Your task to perform on an android device: uninstall "Messenger Lite" Image 0: 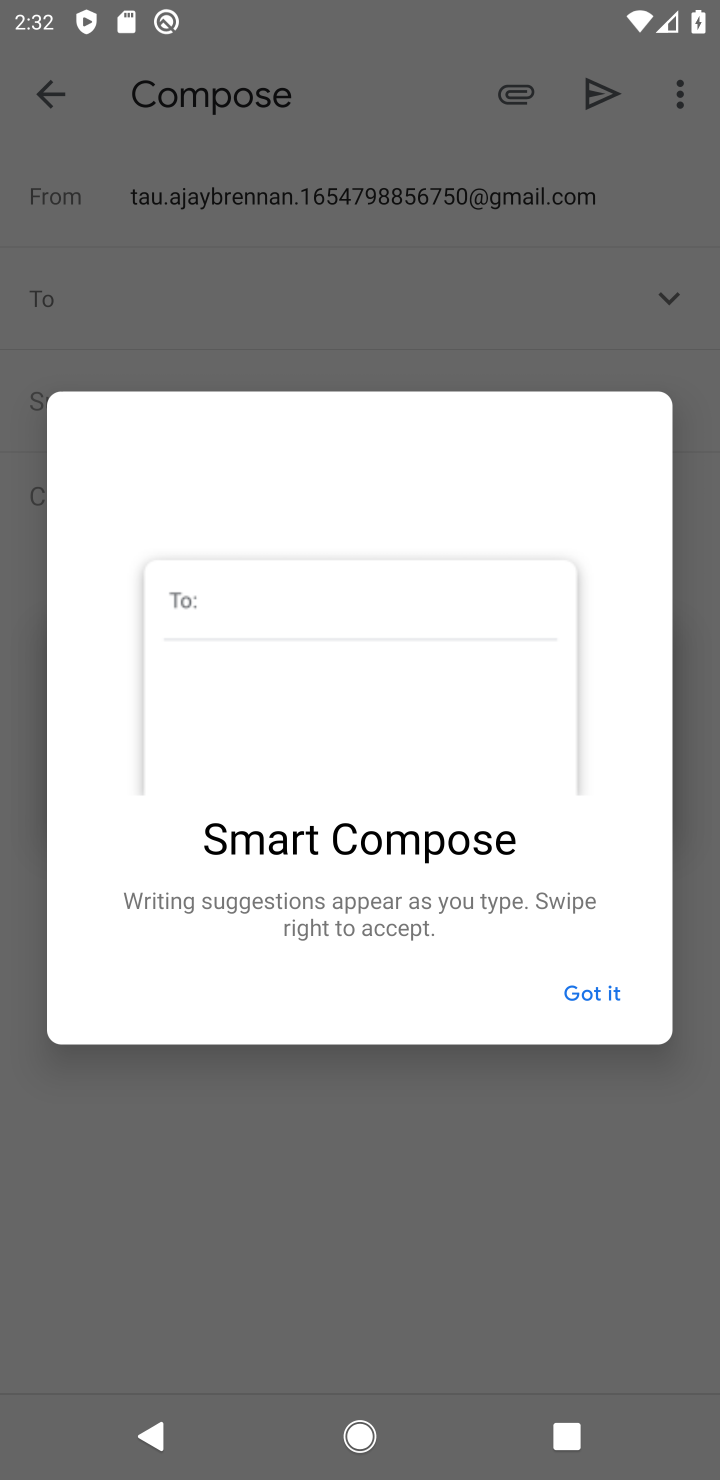
Step 0: press home button
Your task to perform on an android device: uninstall "Messenger Lite" Image 1: 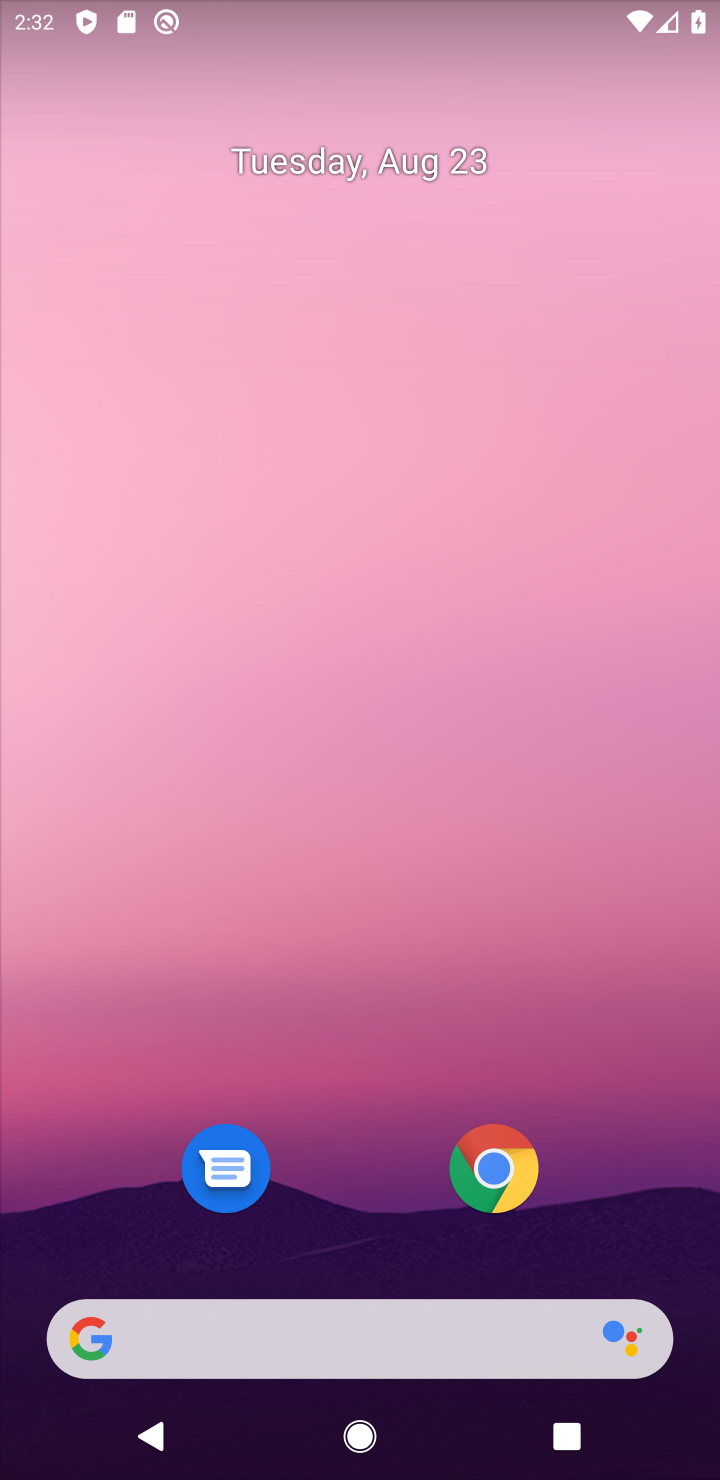
Step 1: drag from (455, 1298) to (480, 389)
Your task to perform on an android device: uninstall "Messenger Lite" Image 2: 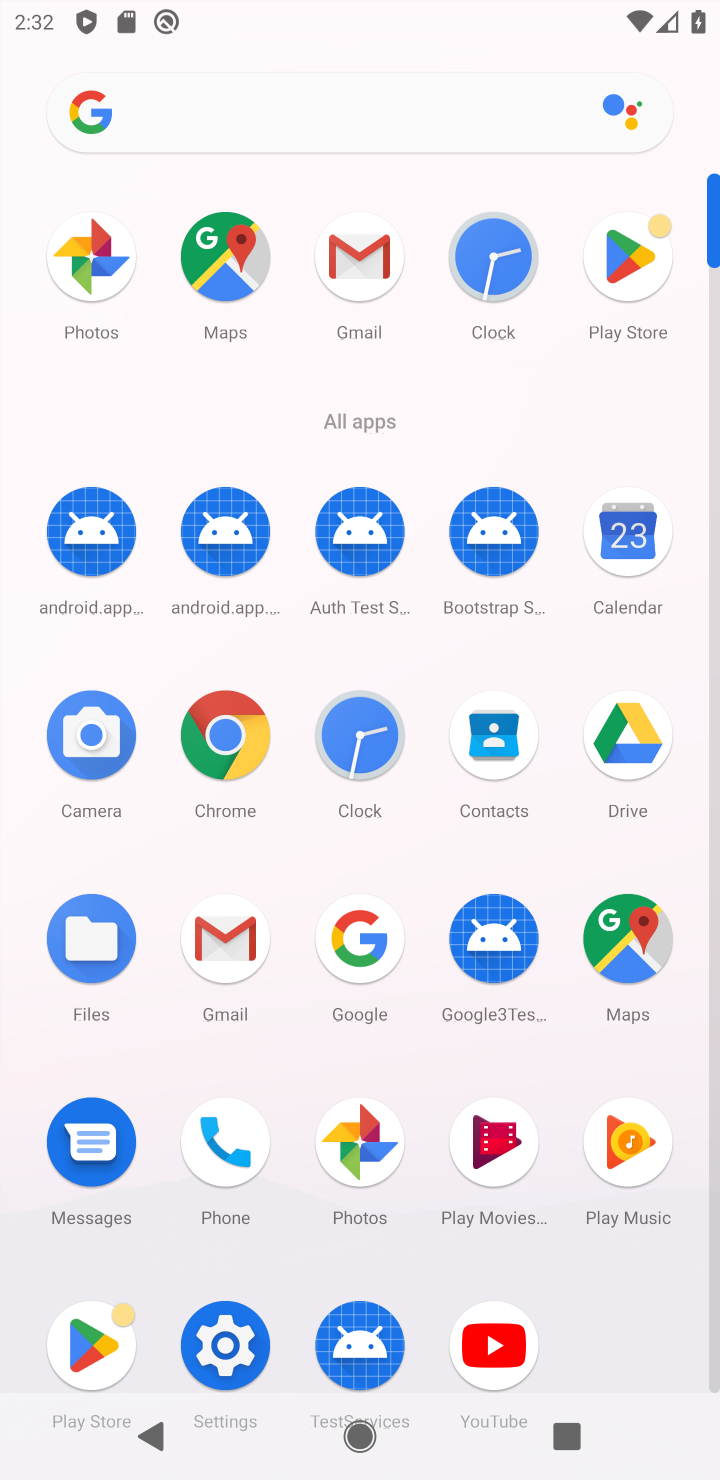
Step 2: click (621, 270)
Your task to perform on an android device: uninstall "Messenger Lite" Image 3: 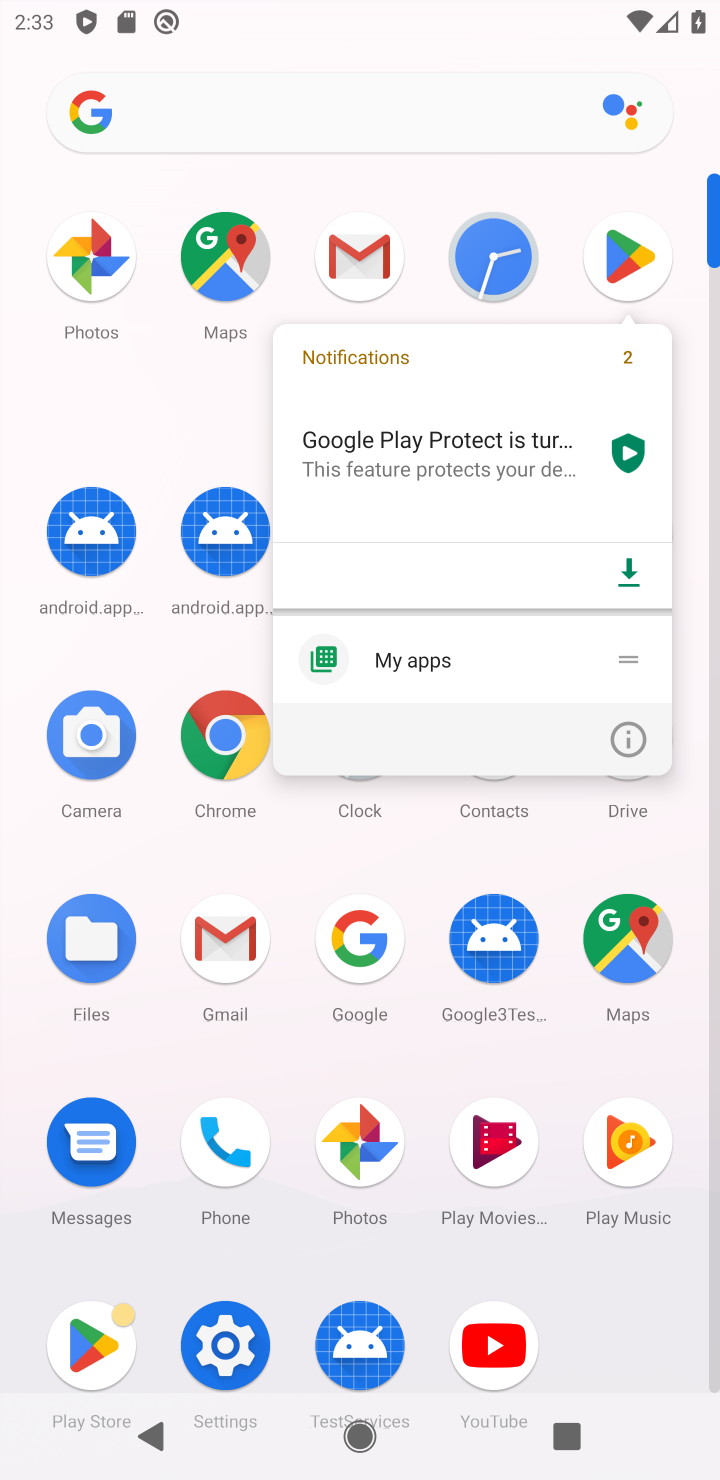
Step 3: click (608, 248)
Your task to perform on an android device: uninstall "Messenger Lite" Image 4: 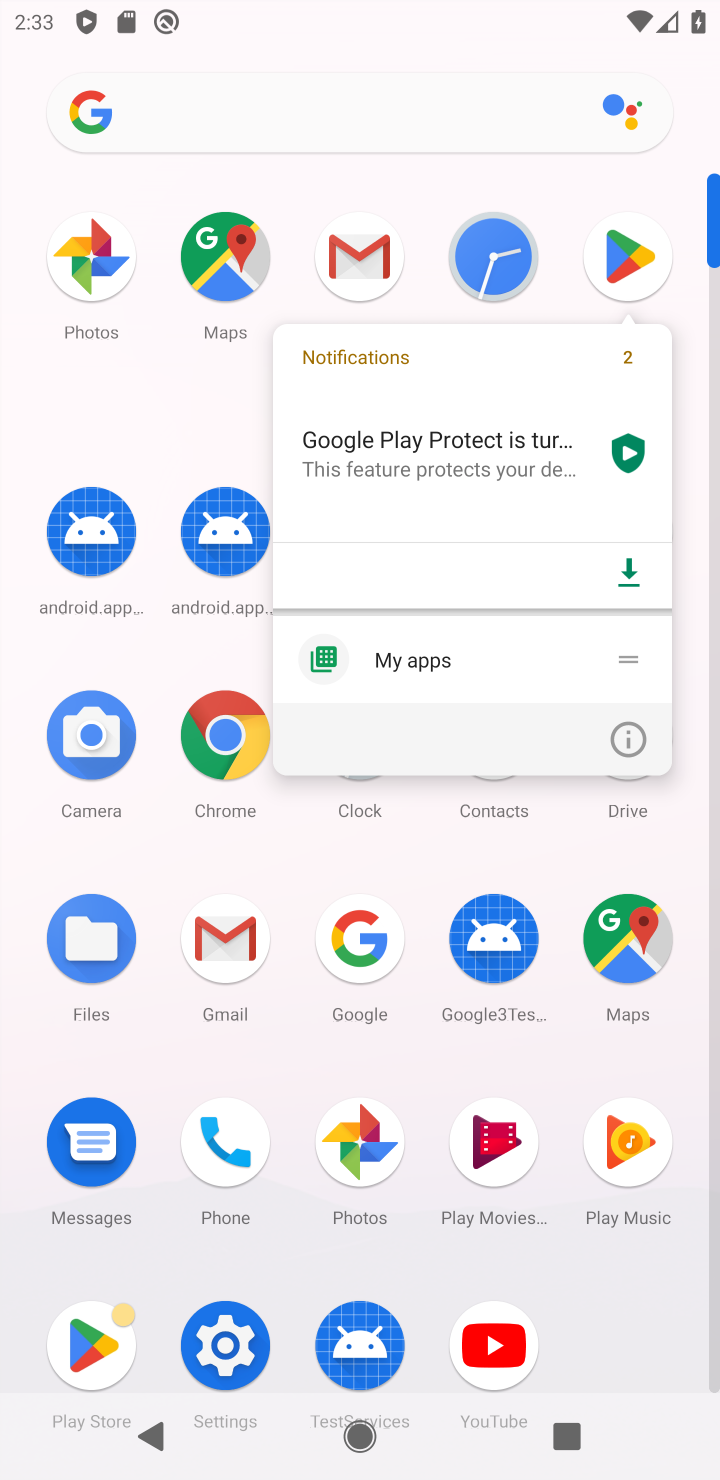
Step 4: click (618, 261)
Your task to perform on an android device: uninstall "Messenger Lite" Image 5: 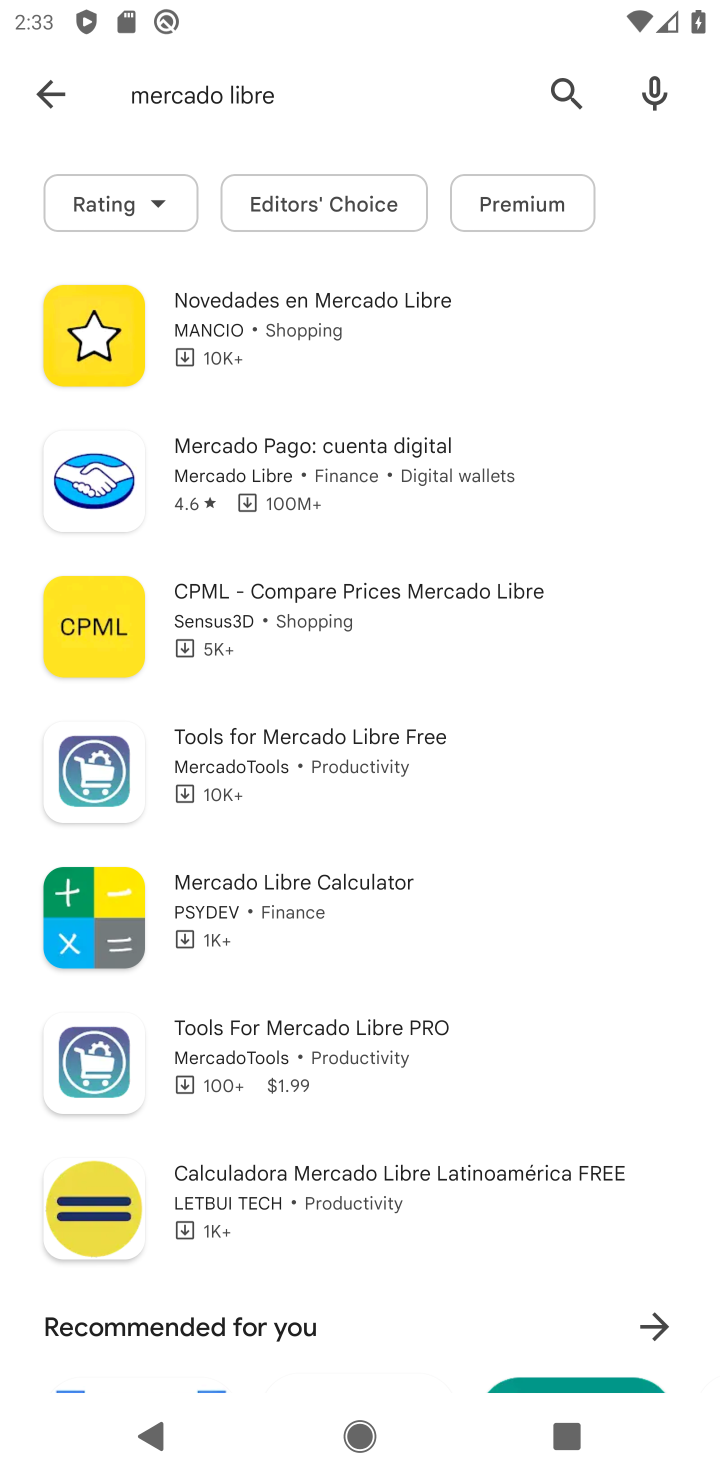
Step 5: click (558, 94)
Your task to perform on an android device: uninstall "Messenger Lite" Image 6: 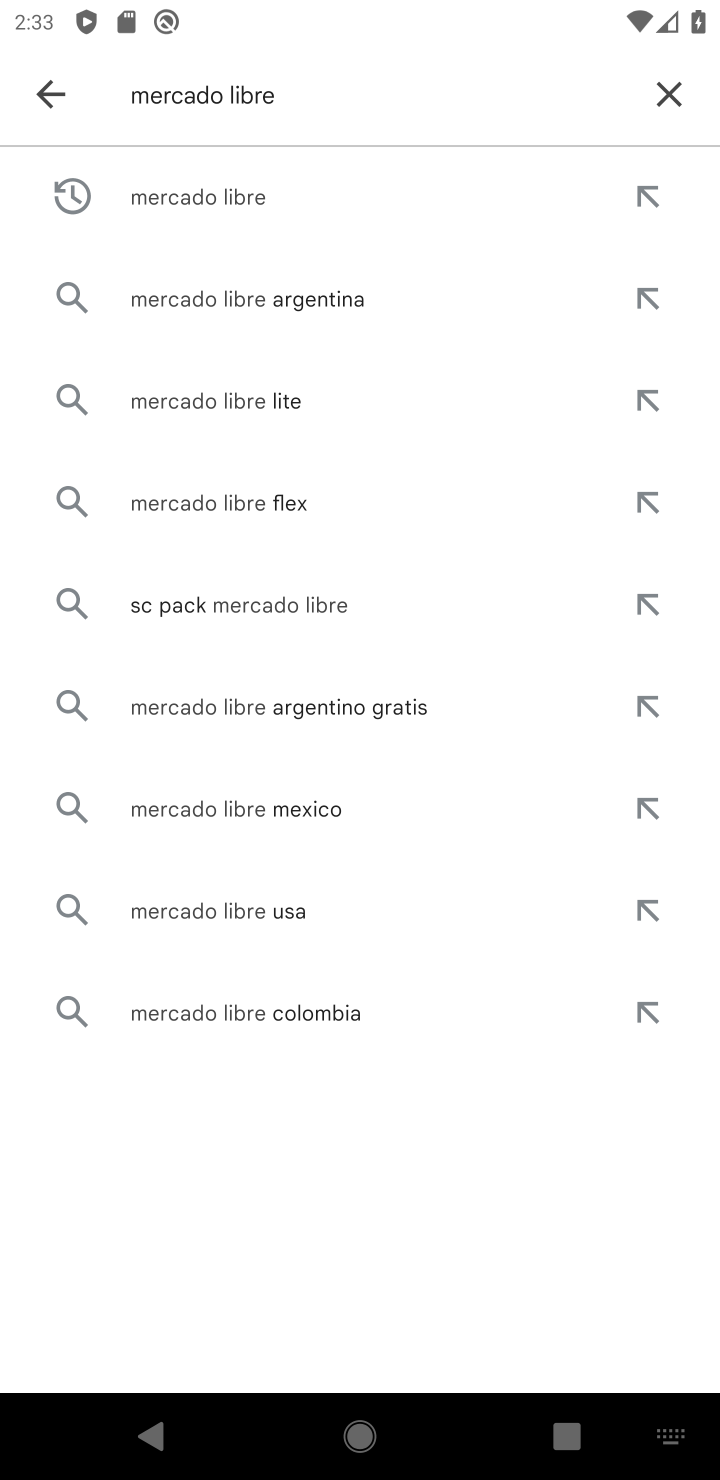
Step 6: click (654, 104)
Your task to perform on an android device: uninstall "Messenger Lite" Image 7: 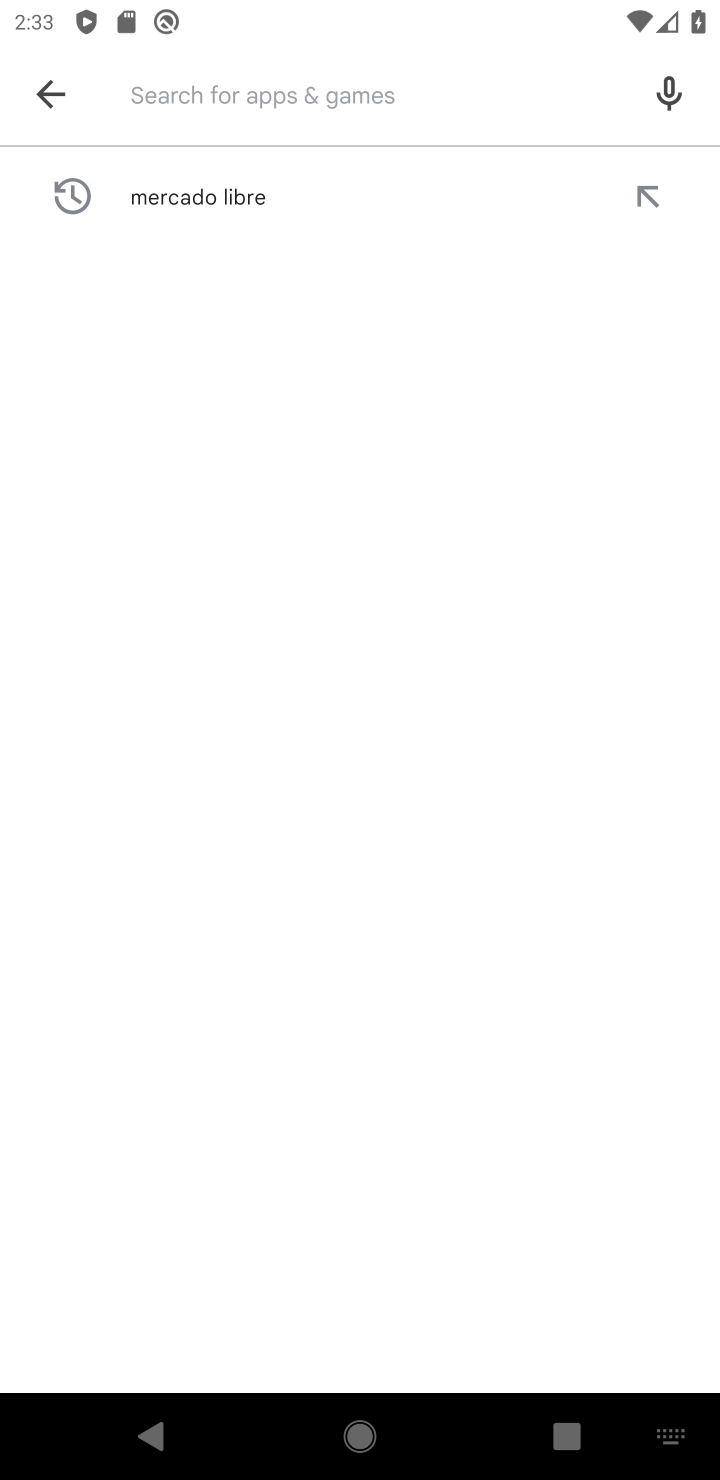
Step 7: type "Messenger Lite"
Your task to perform on an android device: uninstall "Messenger Lite" Image 8: 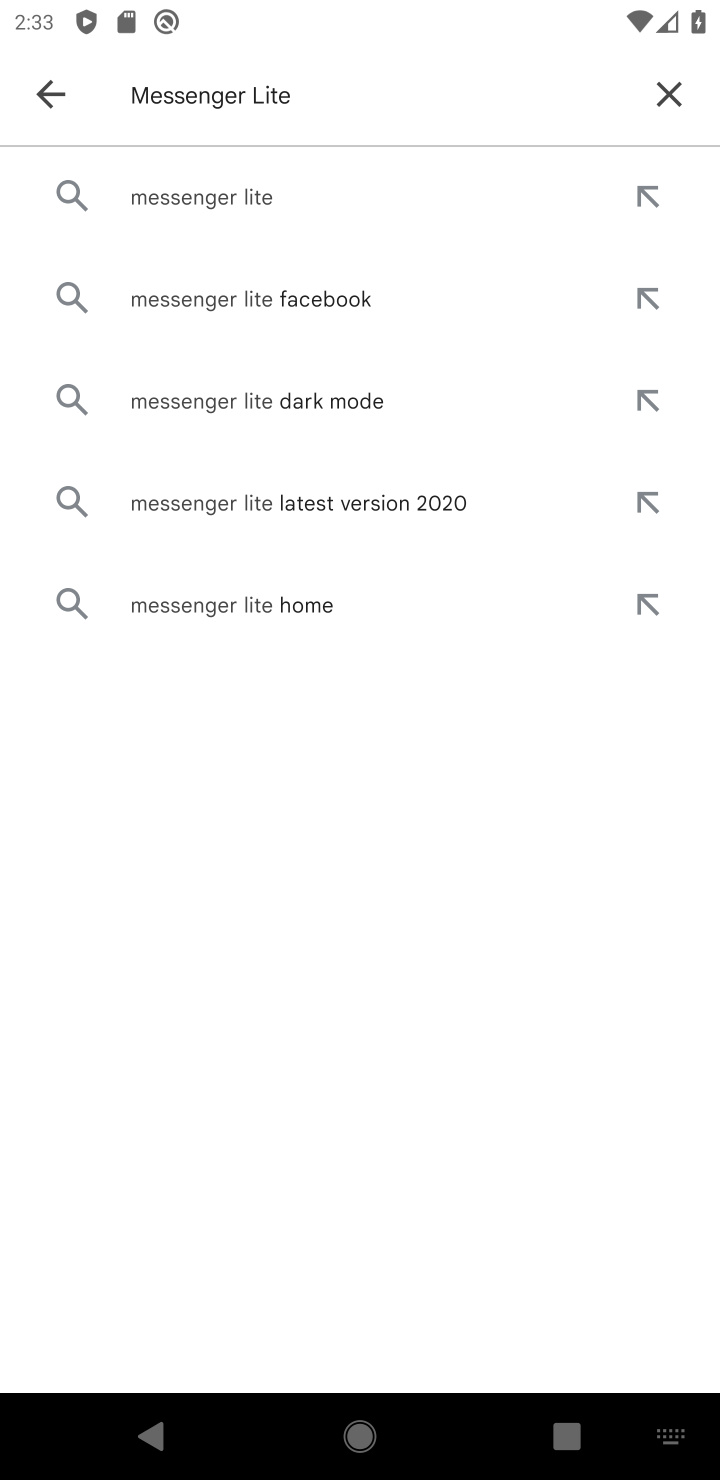
Step 8: click (220, 205)
Your task to perform on an android device: uninstall "Messenger Lite" Image 9: 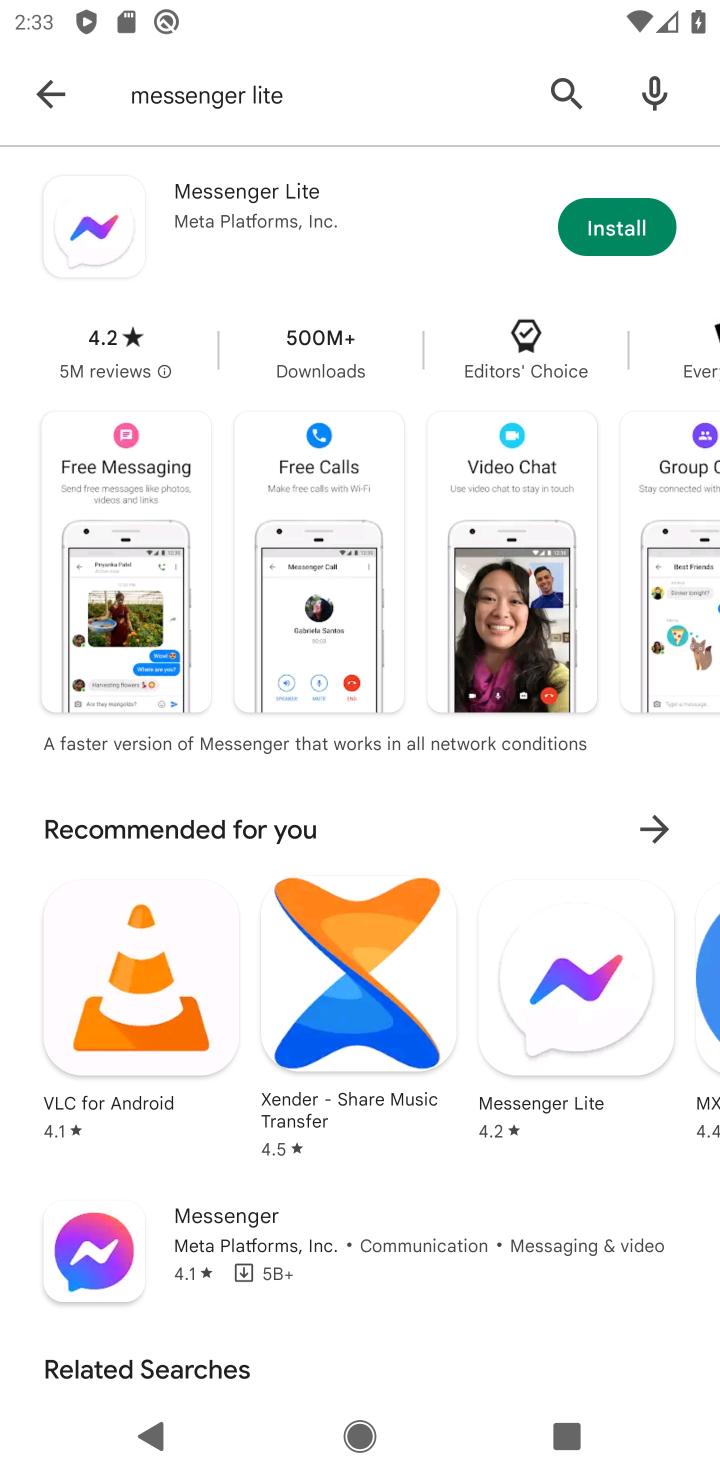
Step 9: task complete